Your task to perform on an android device: change notifications settings Image 0: 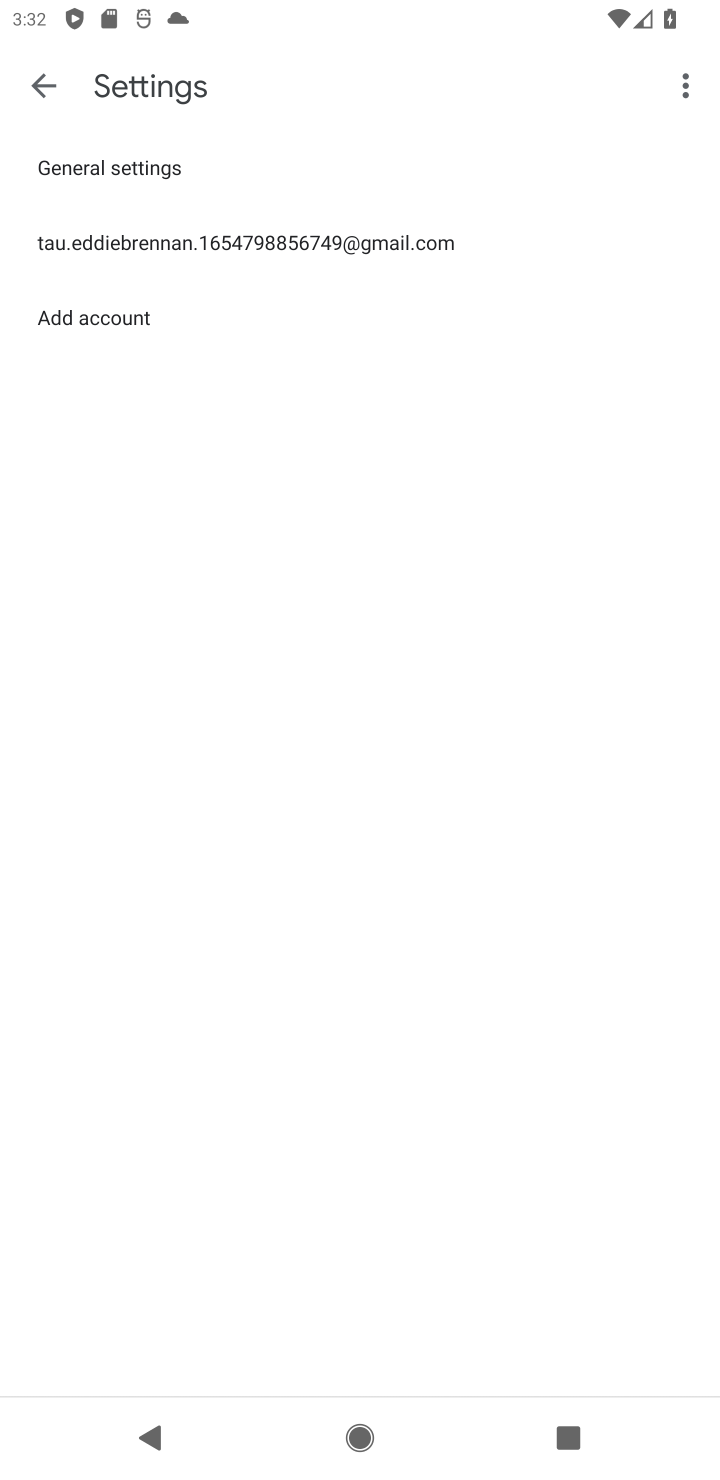
Step 0: press home button
Your task to perform on an android device: change notifications settings Image 1: 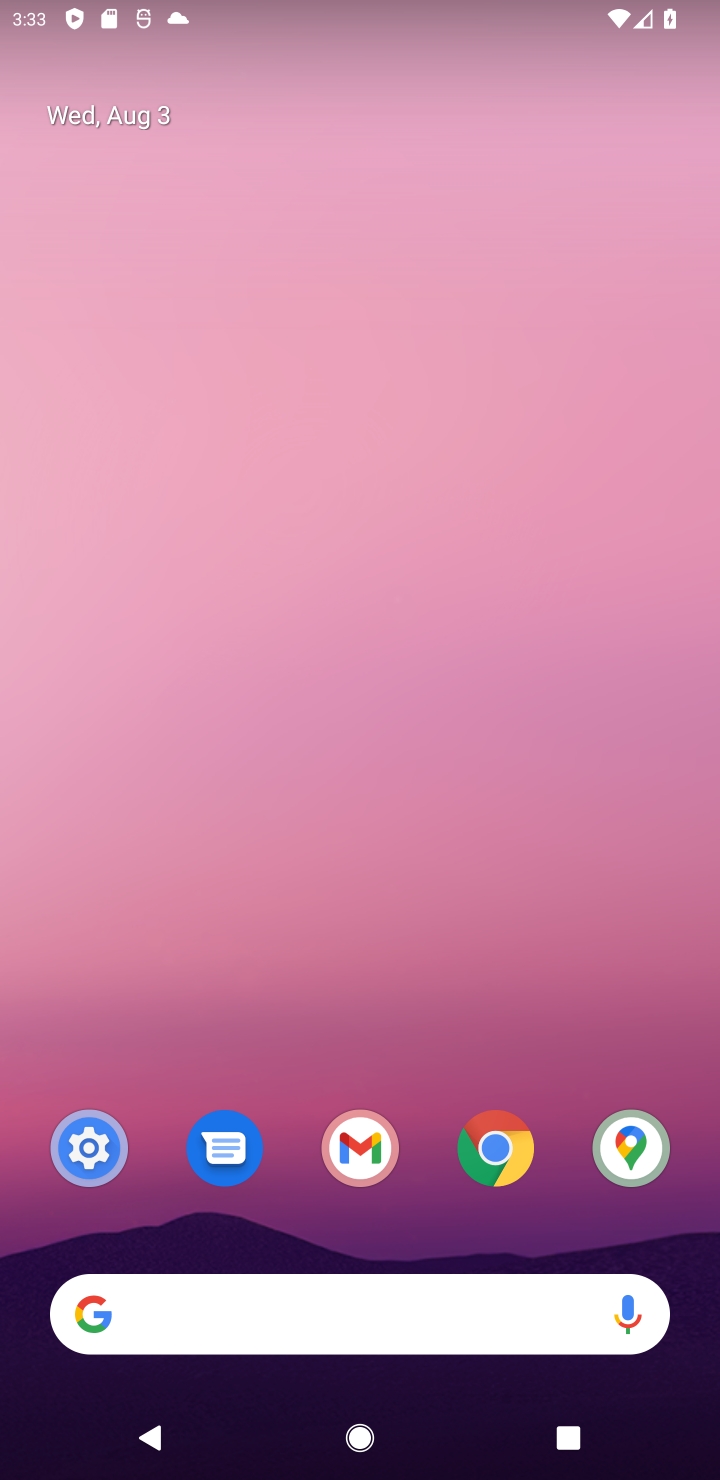
Step 1: drag from (421, 1094) to (463, 162)
Your task to perform on an android device: change notifications settings Image 2: 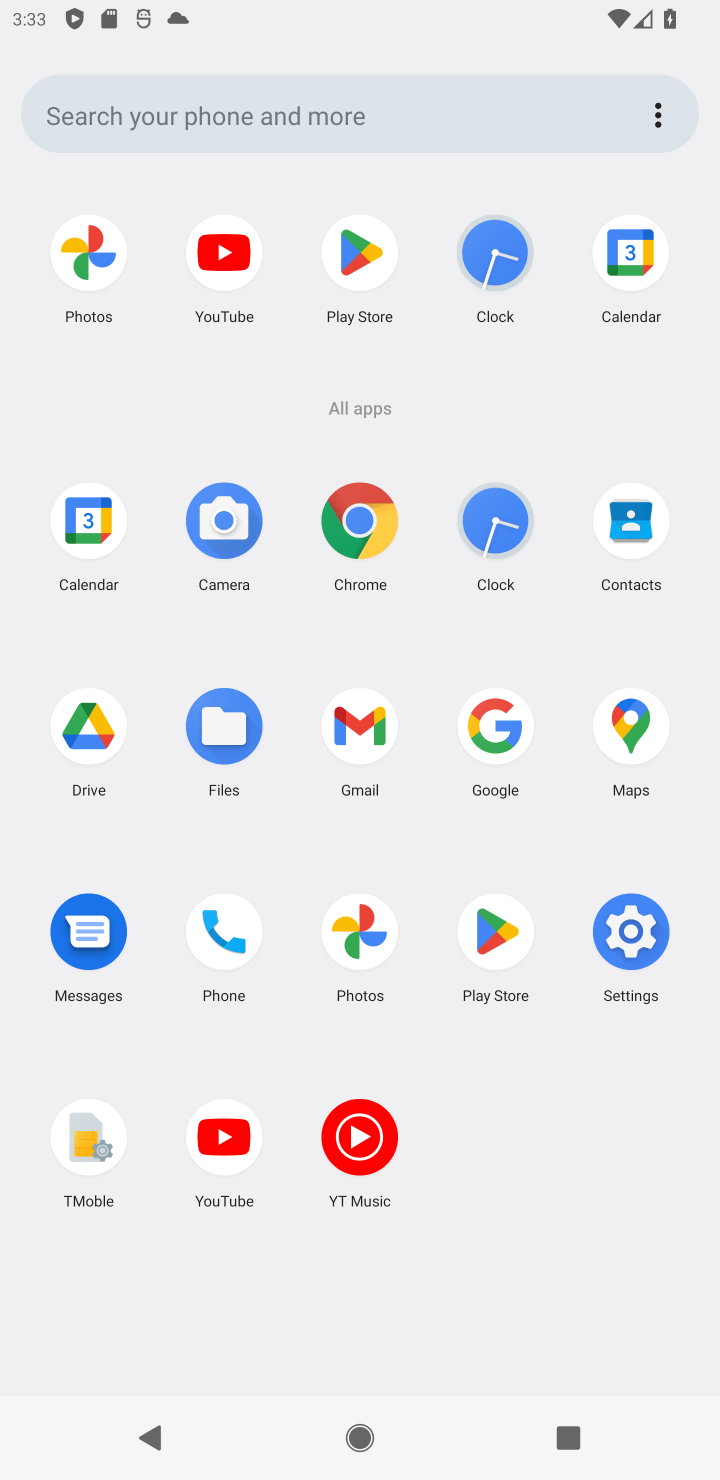
Step 2: click (599, 921)
Your task to perform on an android device: change notifications settings Image 3: 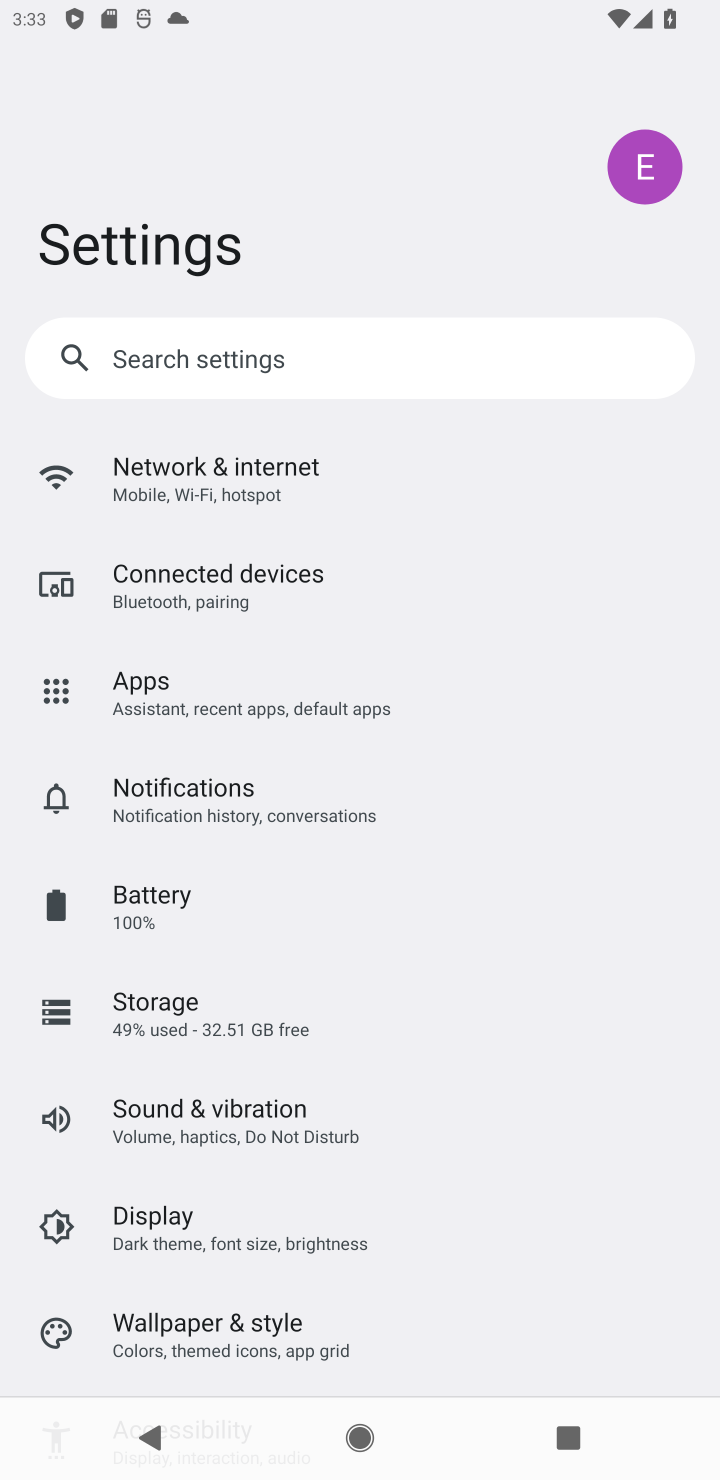
Step 3: click (342, 804)
Your task to perform on an android device: change notifications settings Image 4: 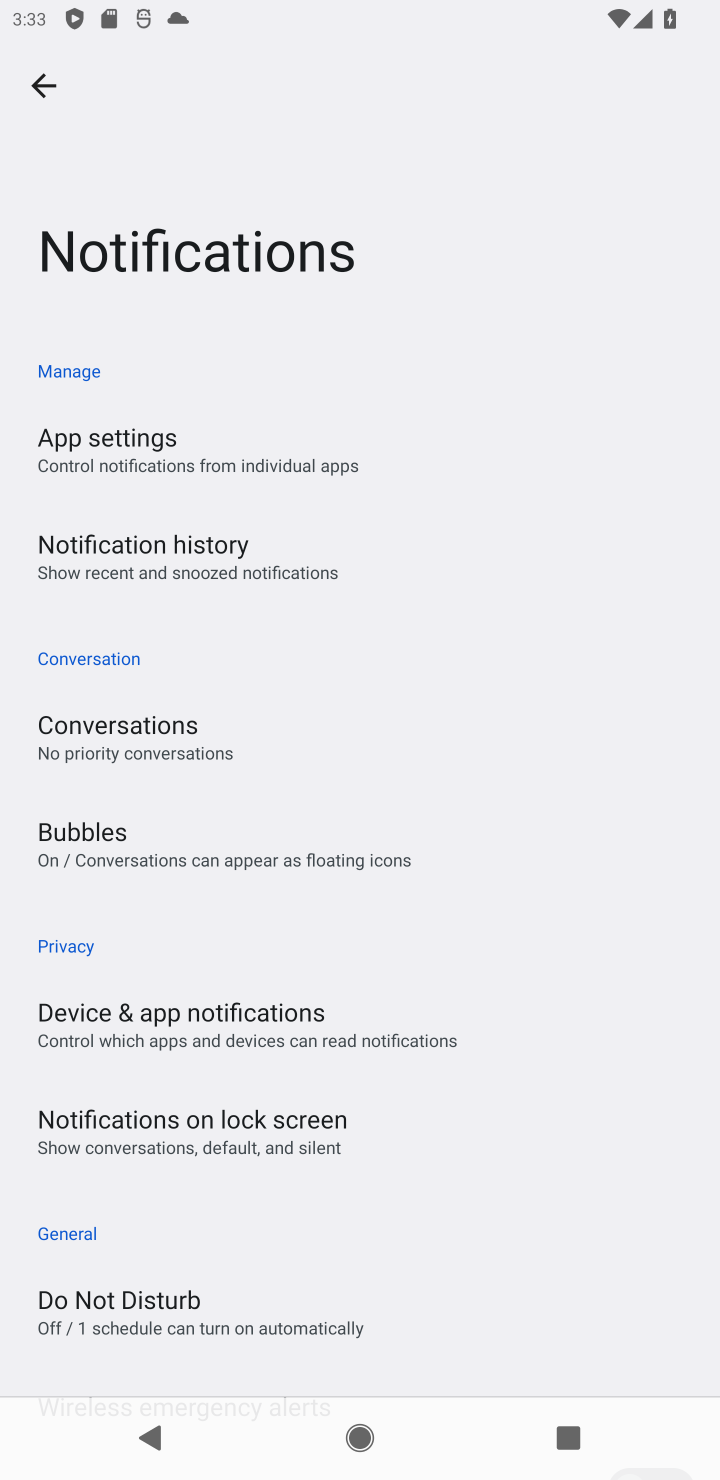
Step 4: drag from (526, 968) to (554, 525)
Your task to perform on an android device: change notifications settings Image 5: 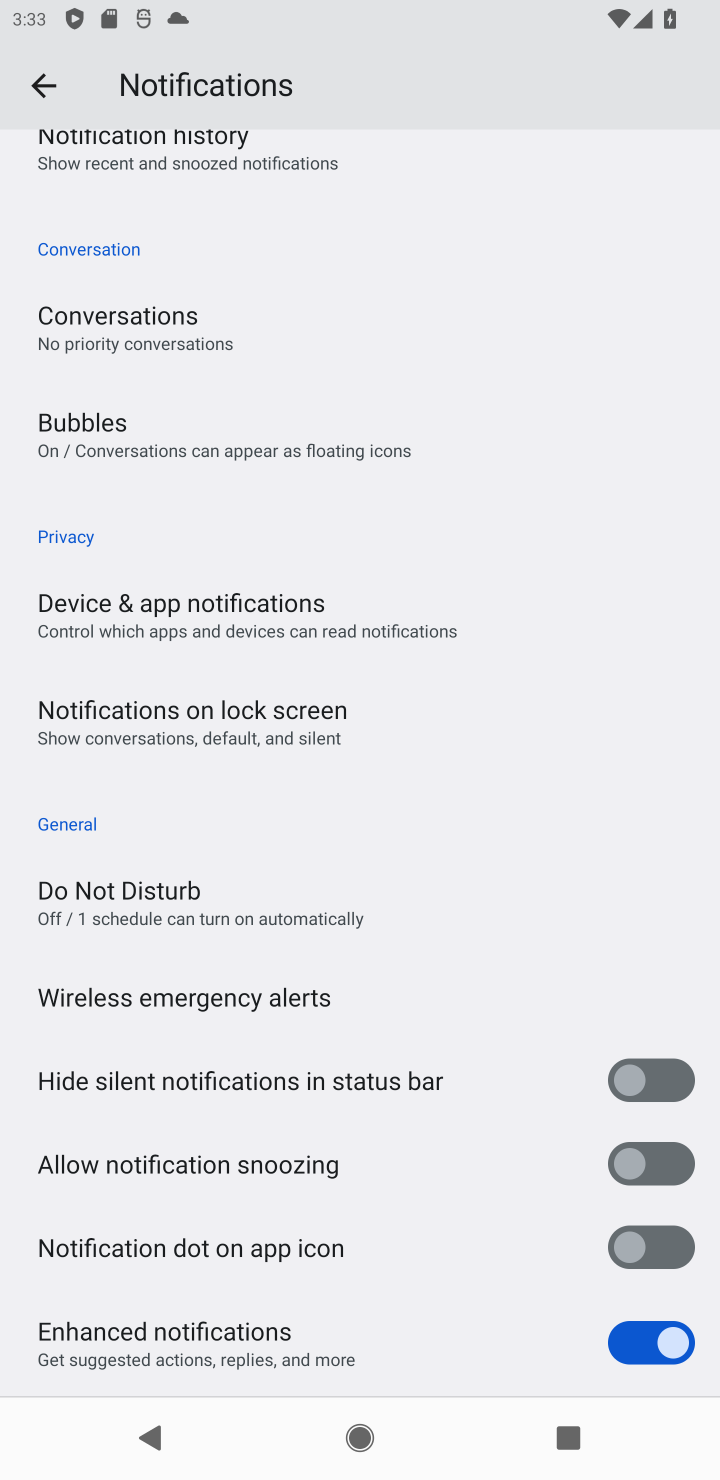
Step 5: drag from (475, 1064) to (513, 708)
Your task to perform on an android device: change notifications settings Image 6: 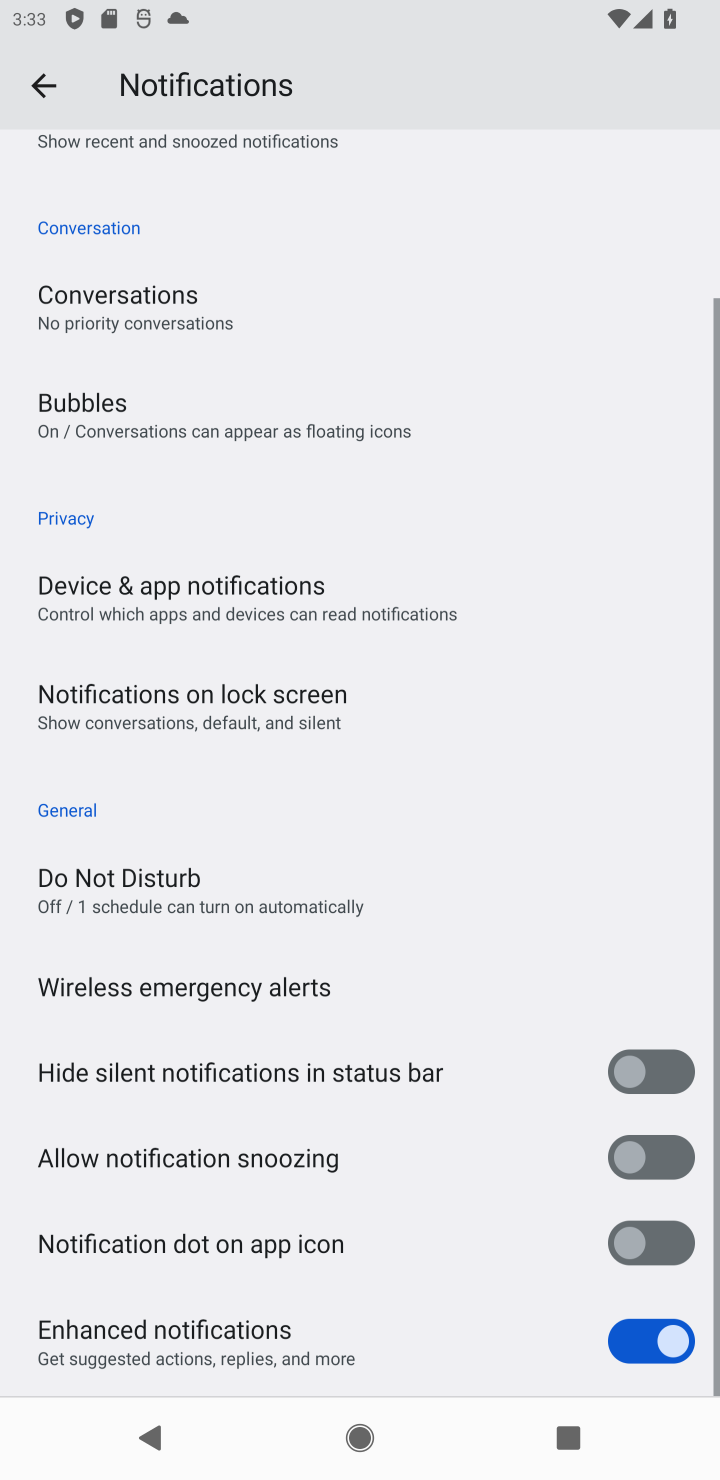
Step 6: drag from (545, 451) to (545, 965)
Your task to perform on an android device: change notifications settings Image 7: 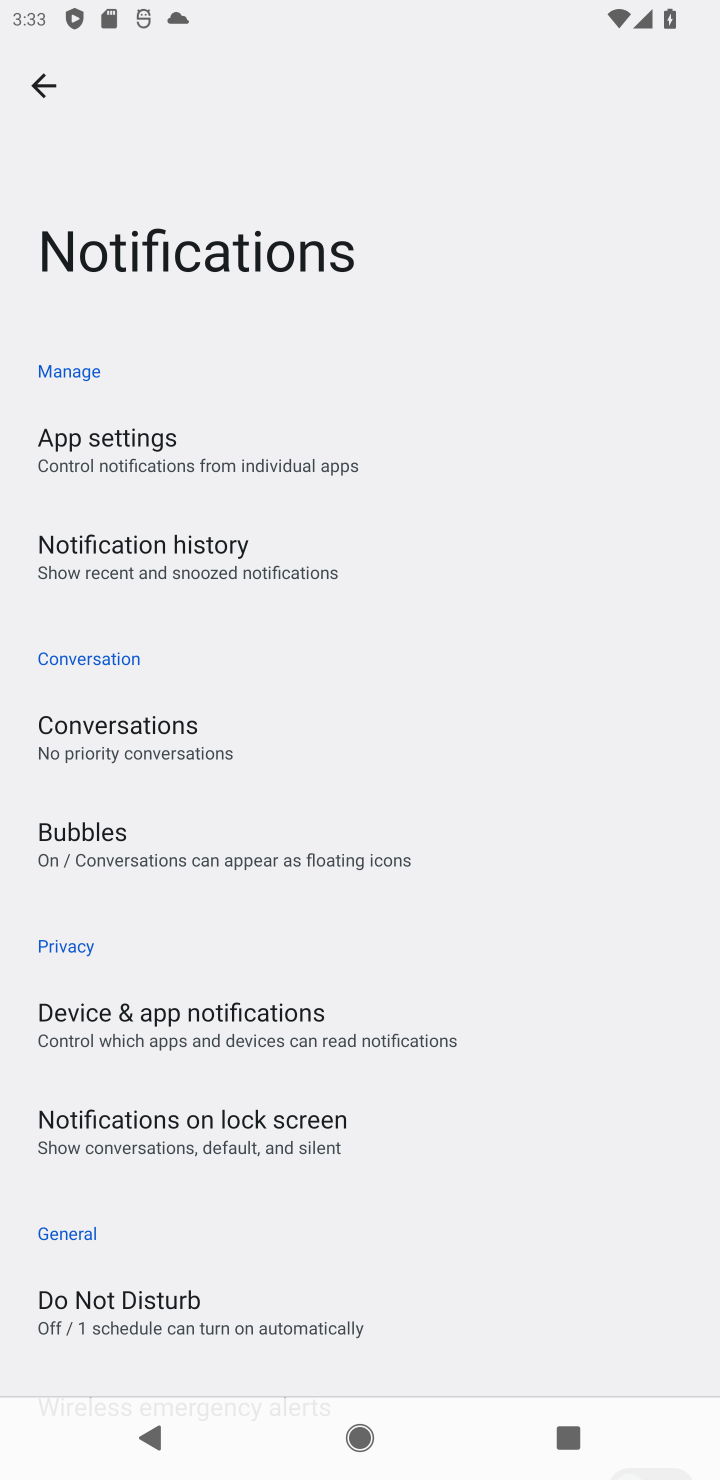
Step 7: drag from (496, 358) to (496, 948)
Your task to perform on an android device: change notifications settings Image 8: 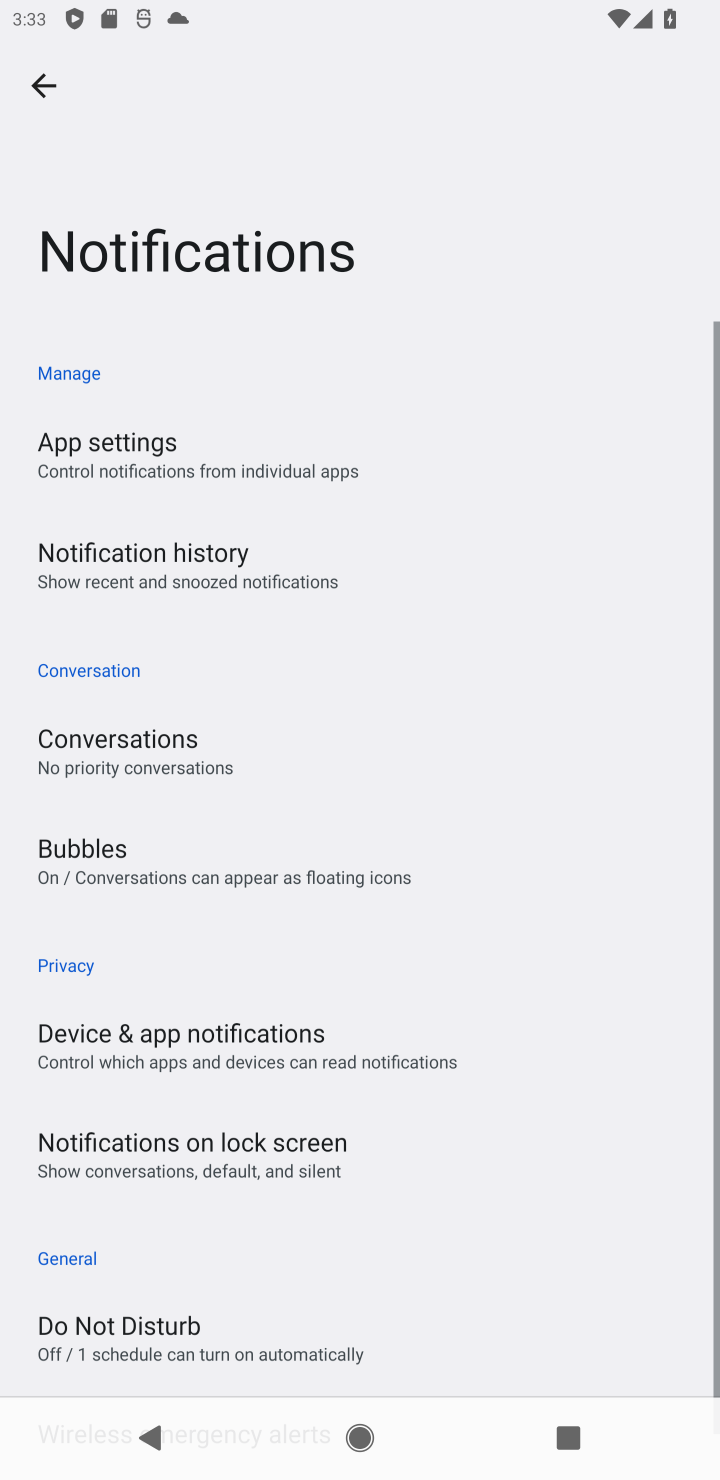
Step 8: click (274, 451)
Your task to perform on an android device: change notifications settings Image 9: 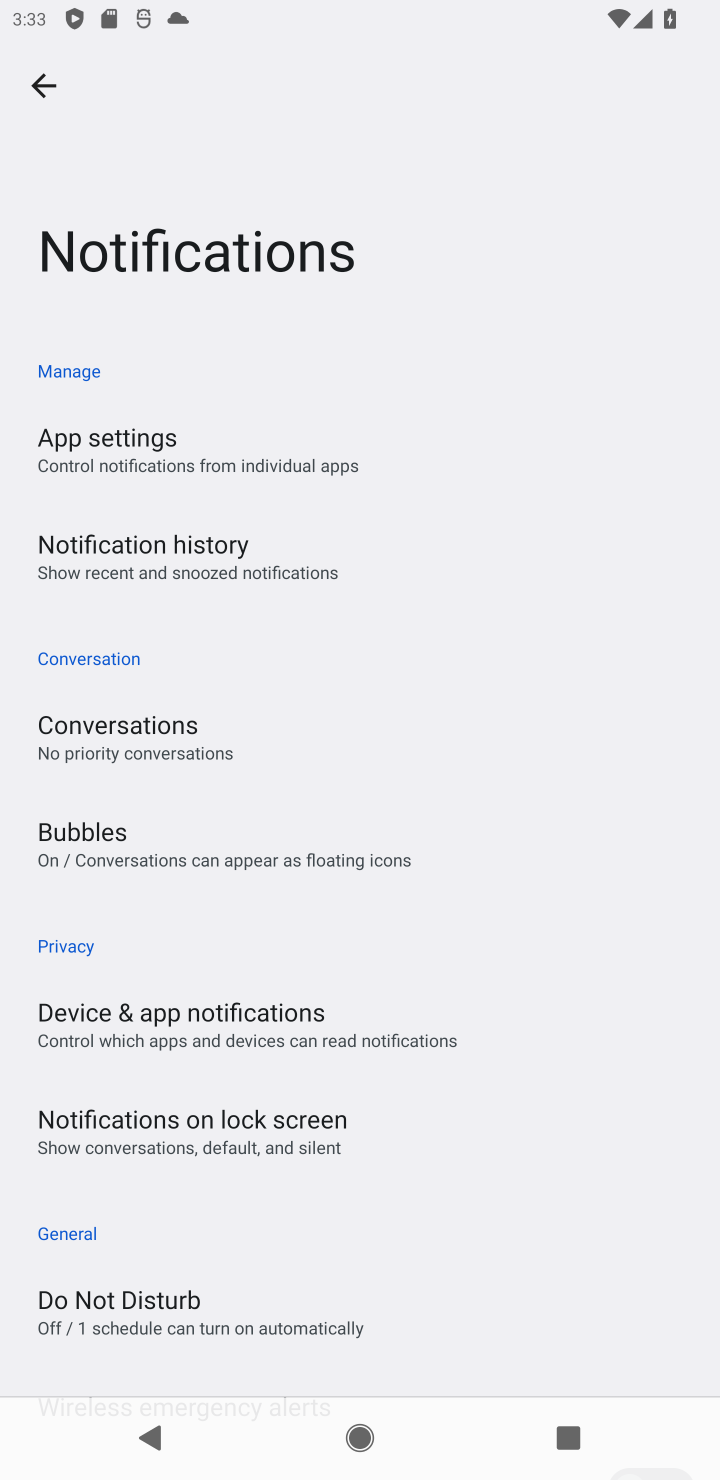
Step 9: click (246, 460)
Your task to perform on an android device: change notifications settings Image 10: 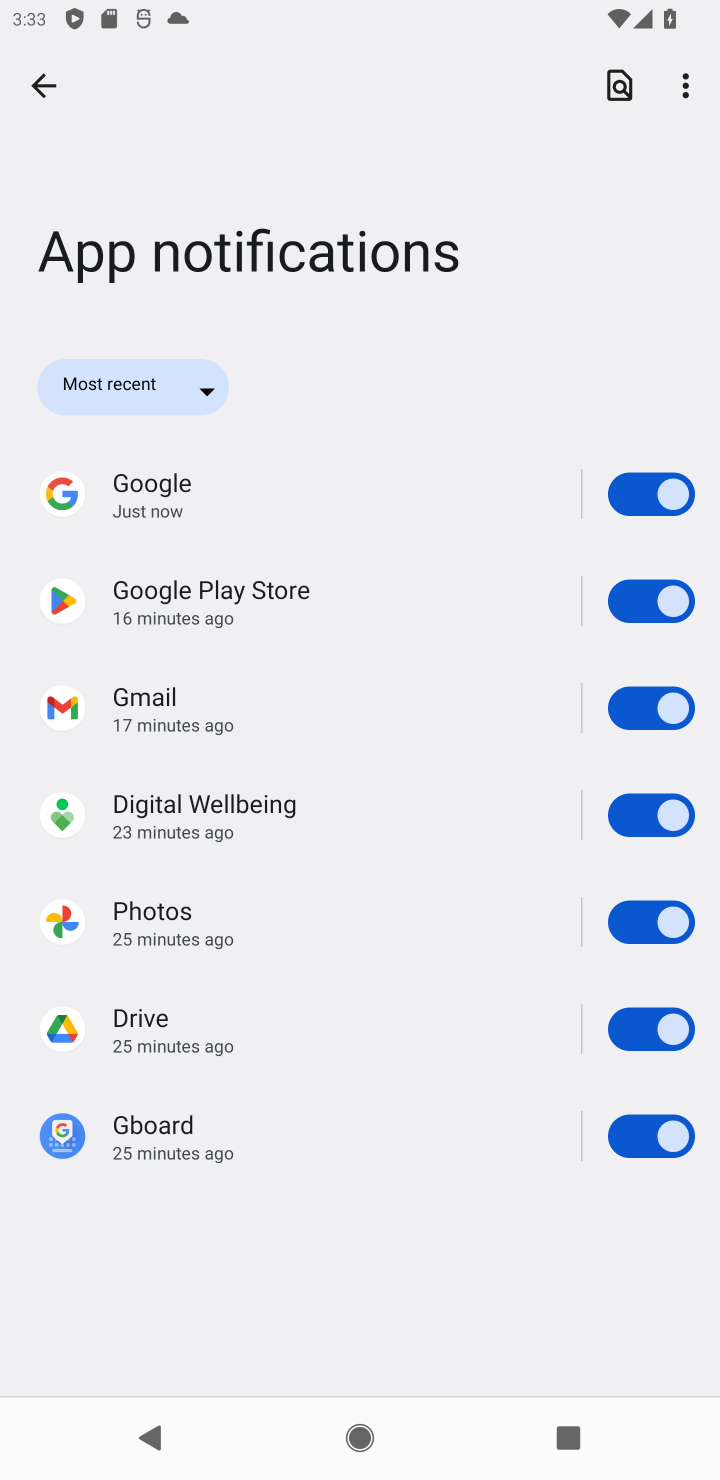
Step 10: click (677, 482)
Your task to perform on an android device: change notifications settings Image 11: 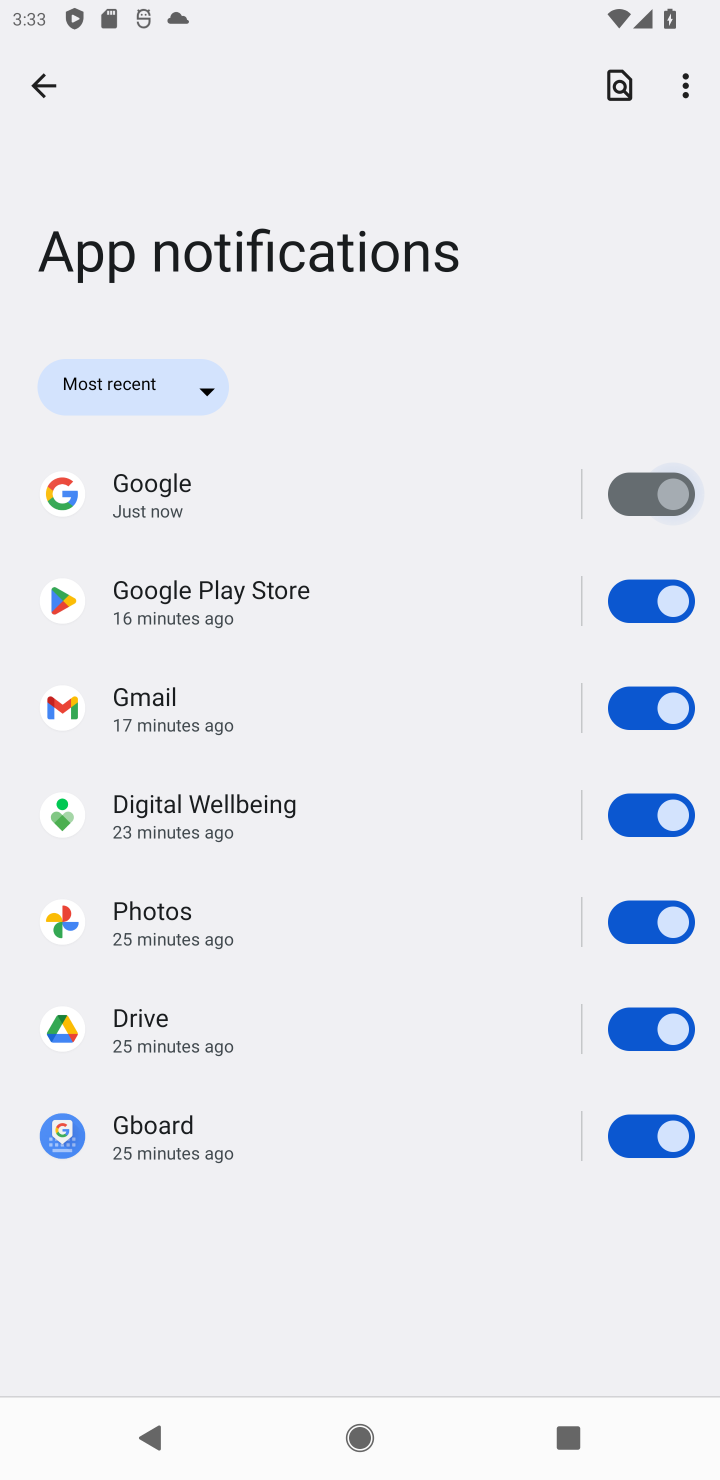
Step 11: click (644, 602)
Your task to perform on an android device: change notifications settings Image 12: 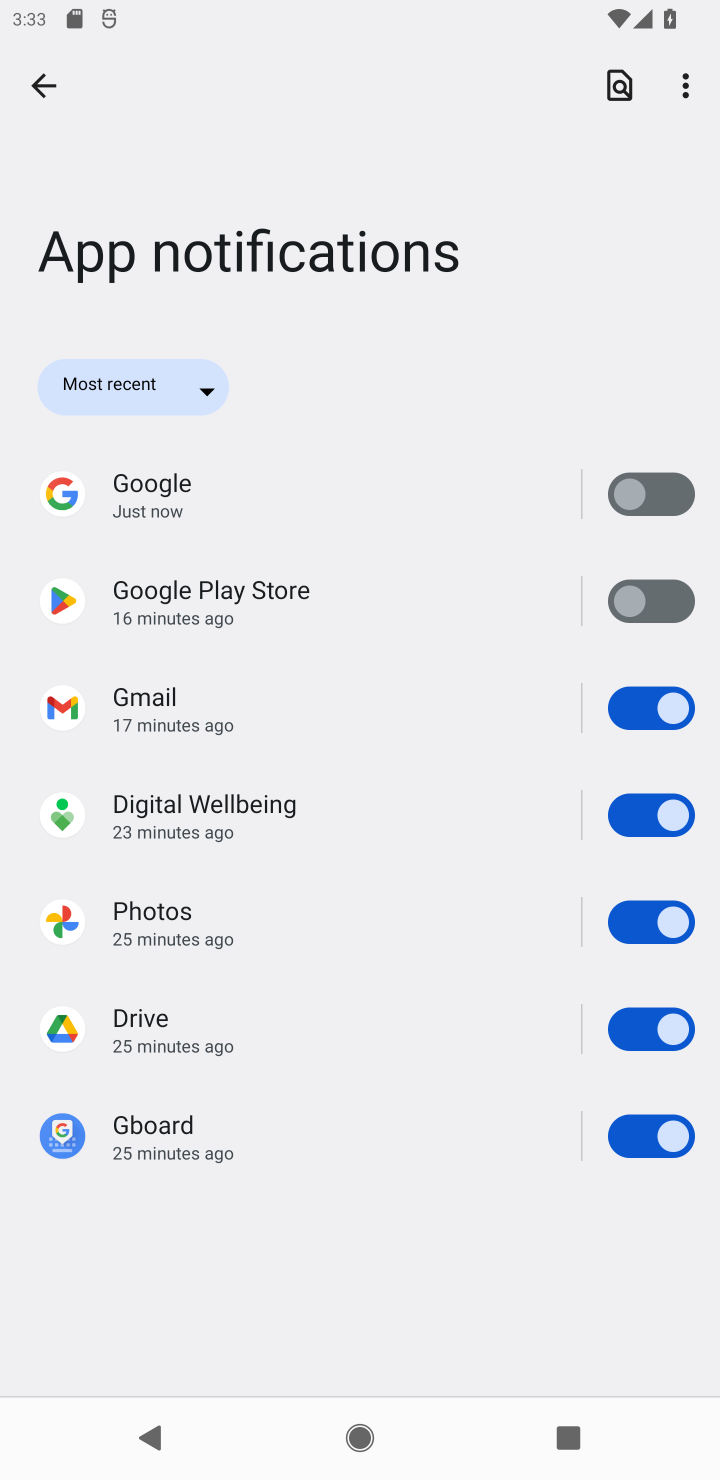
Step 12: click (643, 719)
Your task to perform on an android device: change notifications settings Image 13: 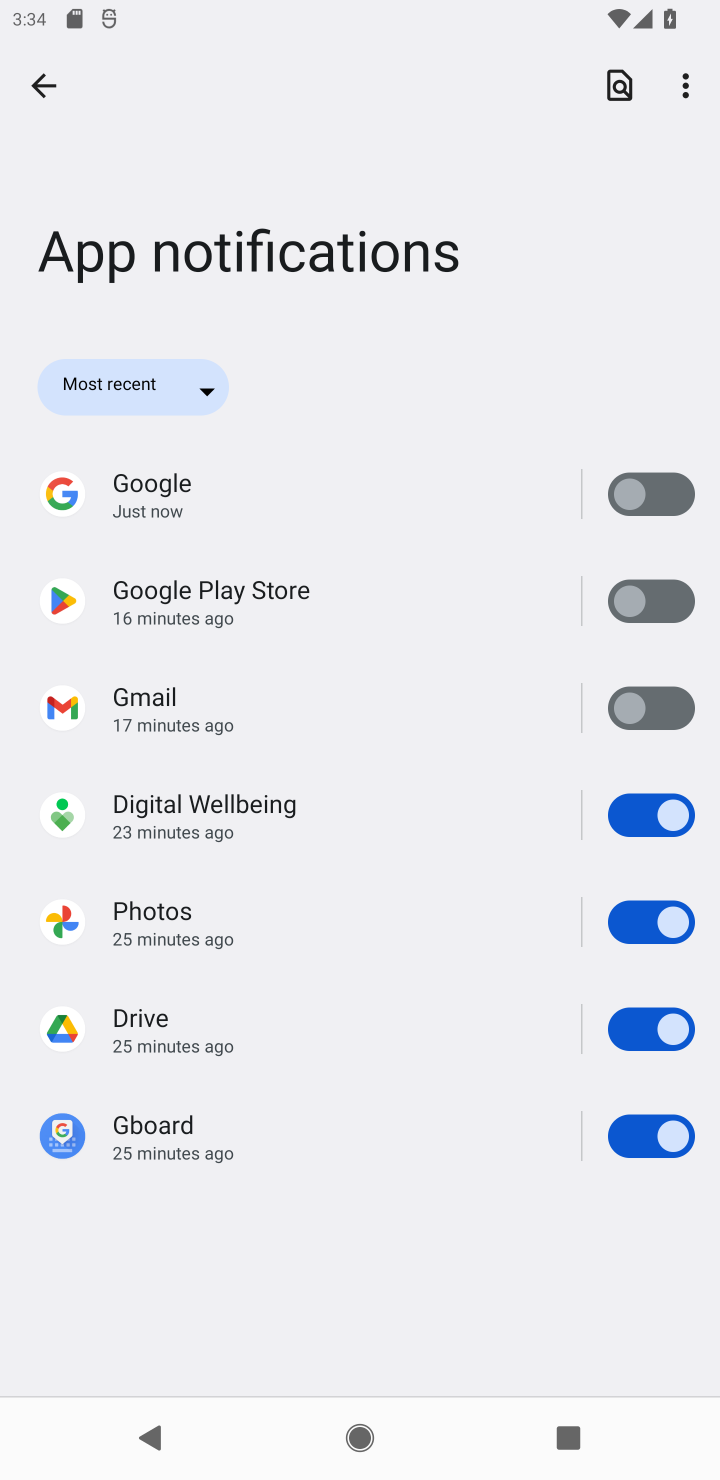
Step 13: task complete